Your task to perform on an android device: Clear the shopping cart on newegg.com. Image 0: 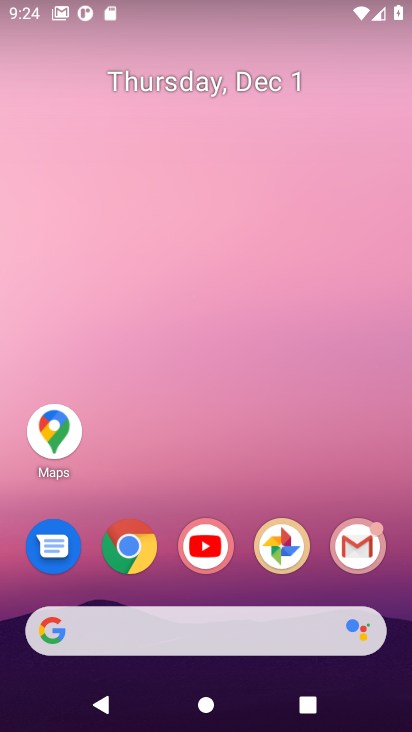
Step 0: click (133, 552)
Your task to perform on an android device: Clear the shopping cart on newegg.com. Image 1: 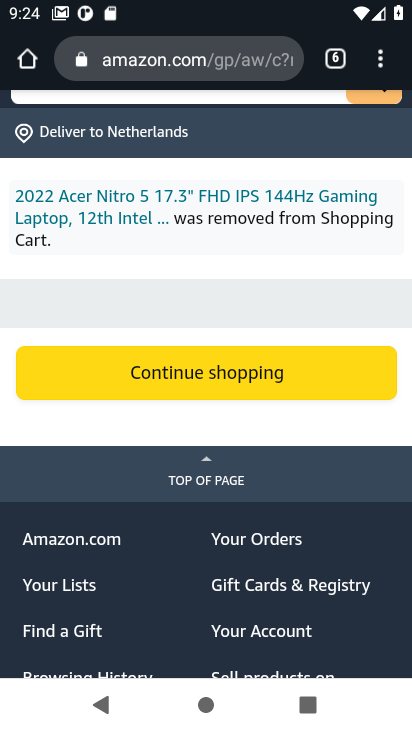
Step 1: click (148, 55)
Your task to perform on an android device: Clear the shopping cart on newegg.com. Image 2: 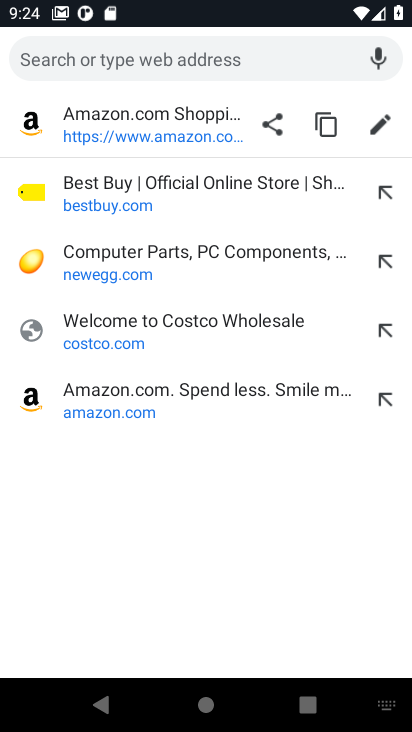
Step 2: click (91, 274)
Your task to perform on an android device: Clear the shopping cart on newegg.com. Image 3: 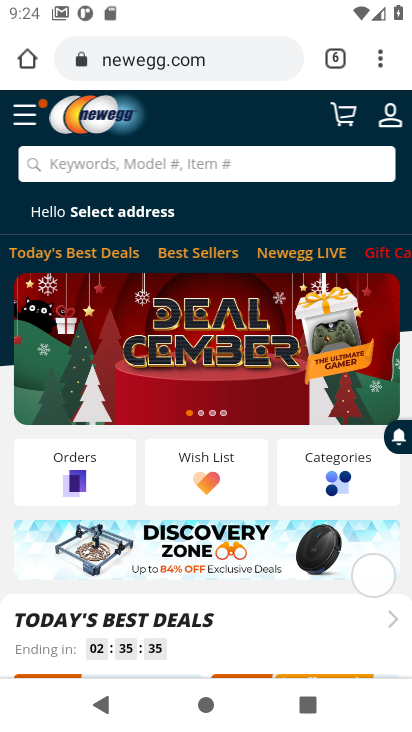
Step 3: click (343, 103)
Your task to perform on an android device: Clear the shopping cart on newegg.com. Image 4: 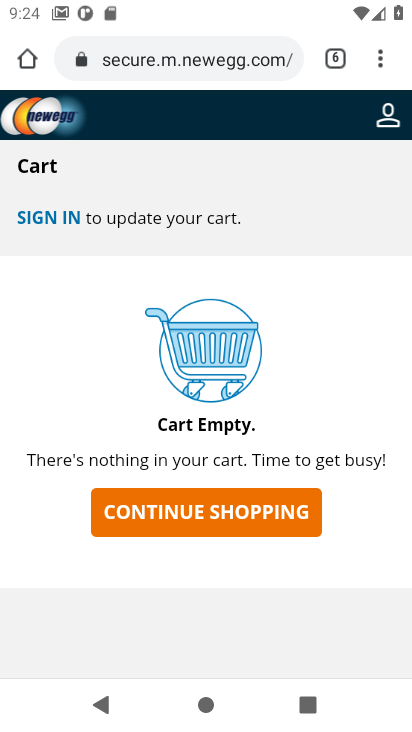
Step 4: task complete